Your task to perform on an android device: Open display settings Image 0: 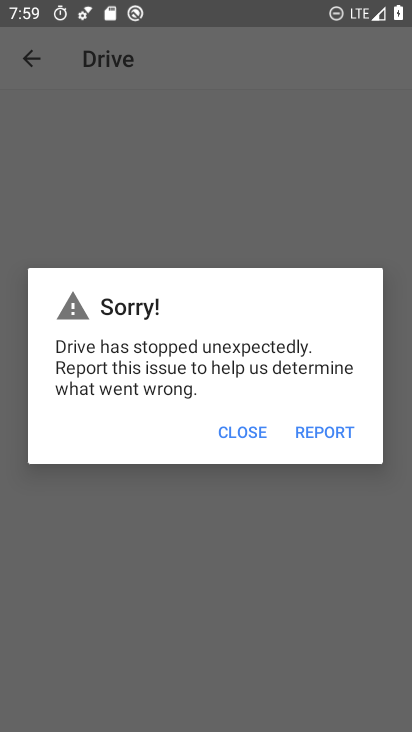
Step 0: press back button
Your task to perform on an android device: Open display settings Image 1: 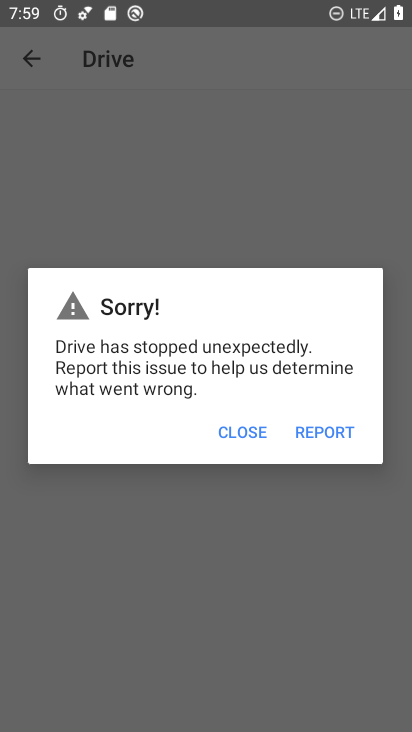
Step 1: press home button
Your task to perform on an android device: Open display settings Image 2: 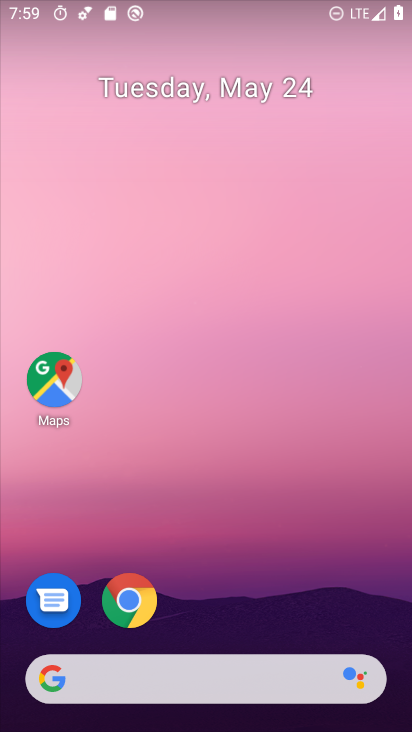
Step 2: drag from (200, 614) to (273, 43)
Your task to perform on an android device: Open display settings Image 3: 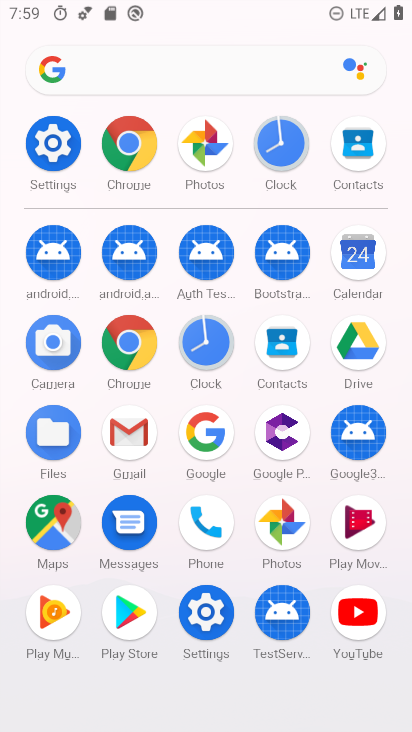
Step 3: click (48, 133)
Your task to perform on an android device: Open display settings Image 4: 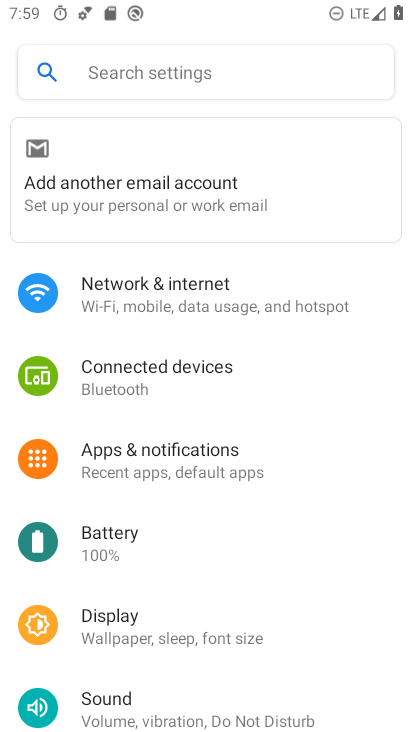
Step 4: click (136, 616)
Your task to perform on an android device: Open display settings Image 5: 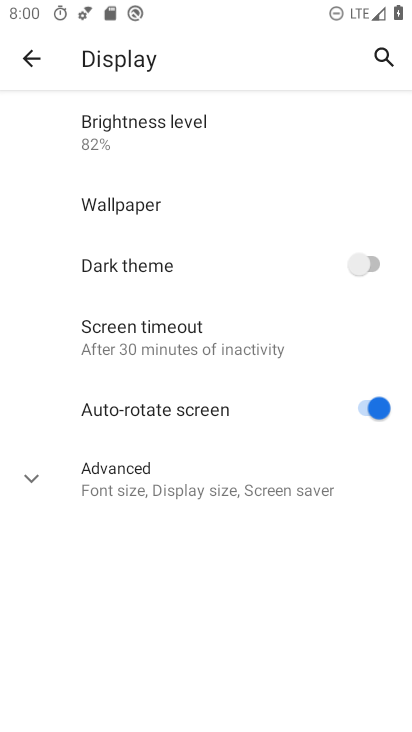
Step 5: task complete